Your task to perform on an android device: Go to settings Image 0: 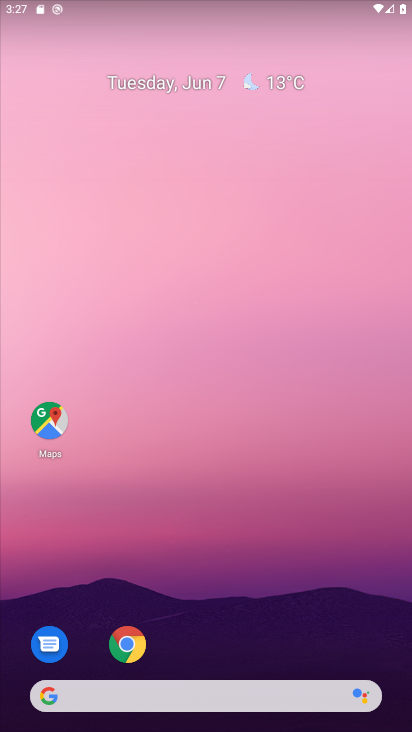
Step 0: drag from (344, 621) to (342, 310)
Your task to perform on an android device: Go to settings Image 1: 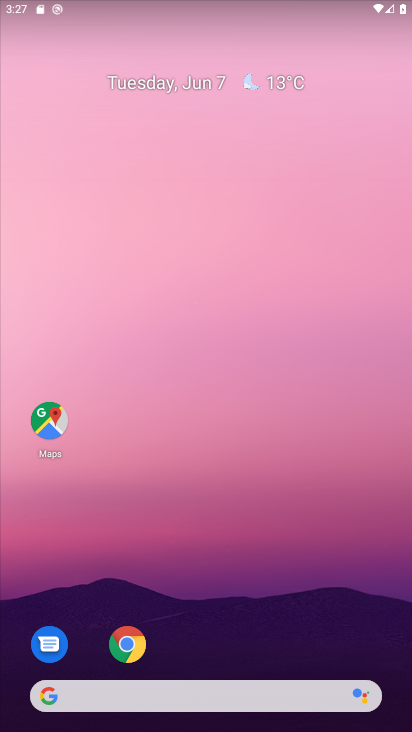
Step 1: drag from (320, 628) to (331, 273)
Your task to perform on an android device: Go to settings Image 2: 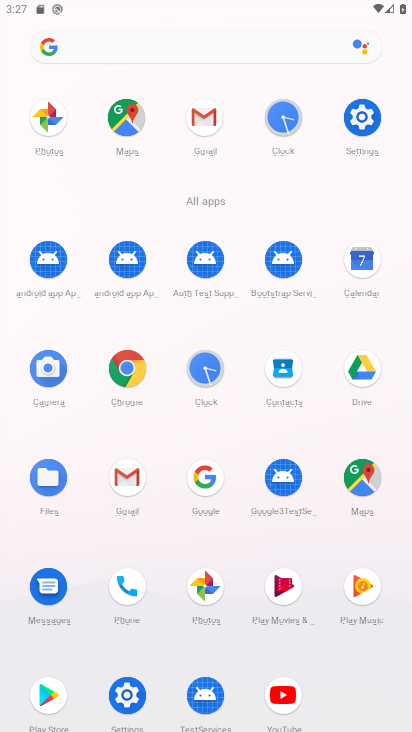
Step 2: click (365, 142)
Your task to perform on an android device: Go to settings Image 3: 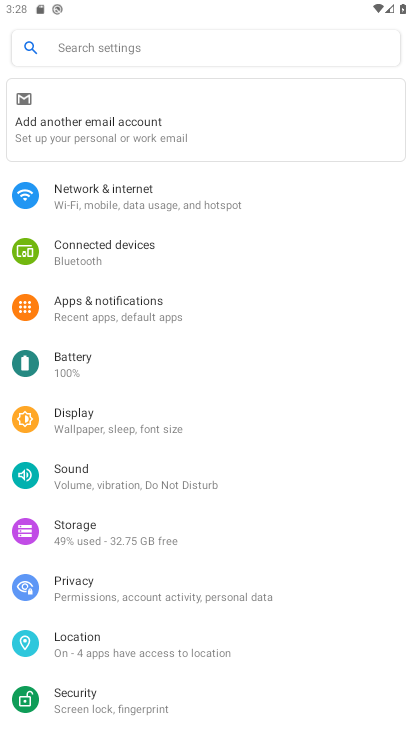
Step 3: task complete